Your task to perform on an android device: toggle improve location accuracy Image 0: 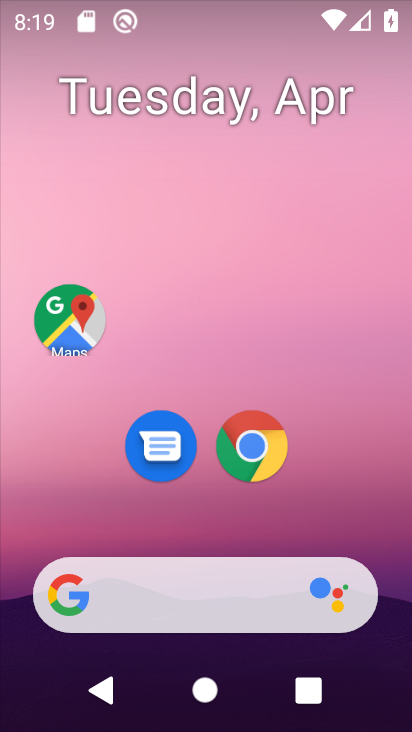
Step 0: drag from (347, 491) to (256, 153)
Your task to perform on an android device: toggle improve location accuracy Image 1: 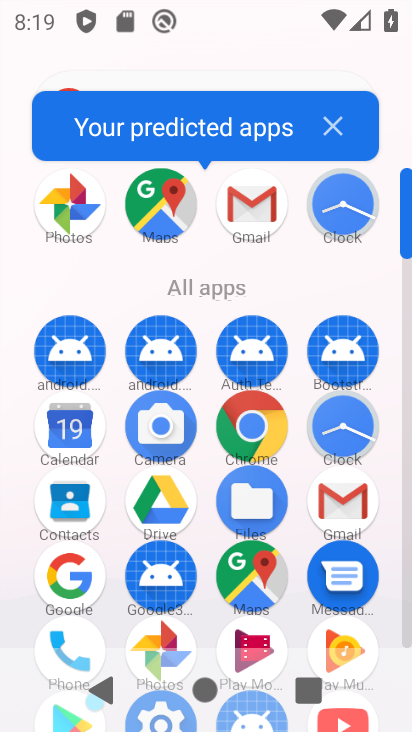
Step 1: drag from (289, 653) to (285, 300)
Your task to perform on an android device: toggle improve location accuracy Image 2: 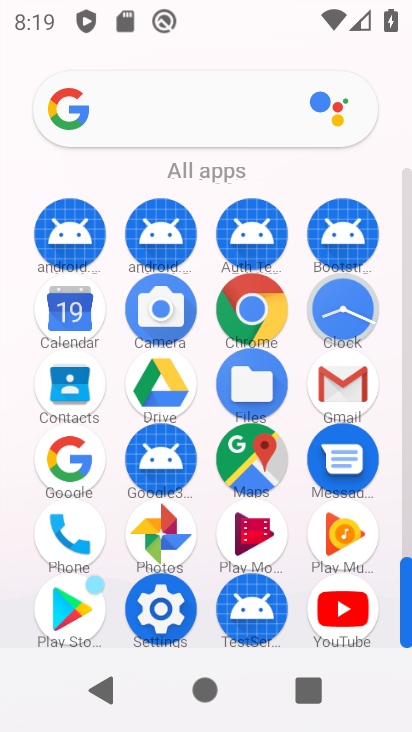
Step 2: click (163, 606)
Your task to perform on an android device: toggle improve location accuracy Image 3: 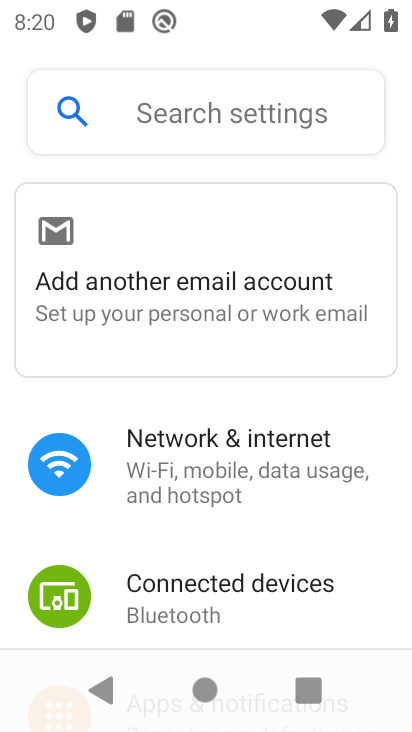
Step 3: drag from (175, 623) to (160, 295)
Your task to perform on an android device: toggle improve location accuracy Image 4: 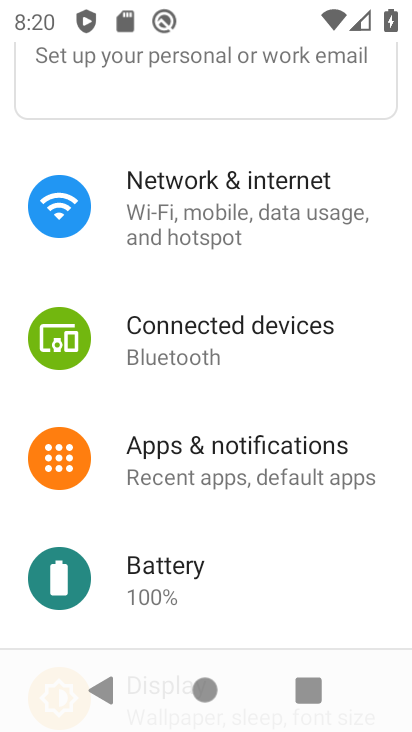
Step 4: drag from (191, 524) to (214, 211)
Your task to perform on an android device: toggle improve location accuracy Image 5: 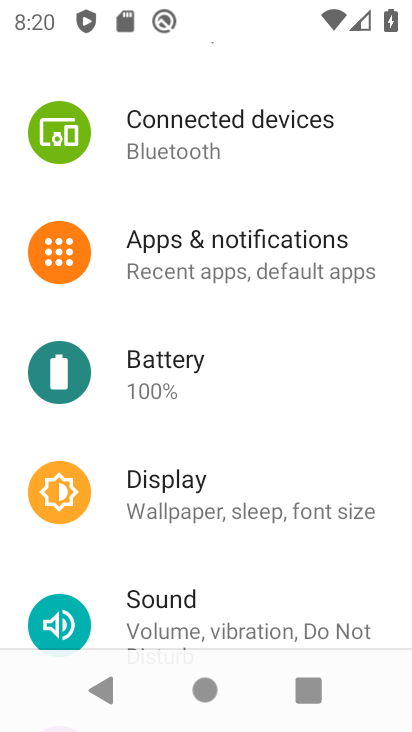
Step 5: drag from (202, 599) to (206, 181)
Your task to perform on an android device: toggle improve location accuracy Image 6: 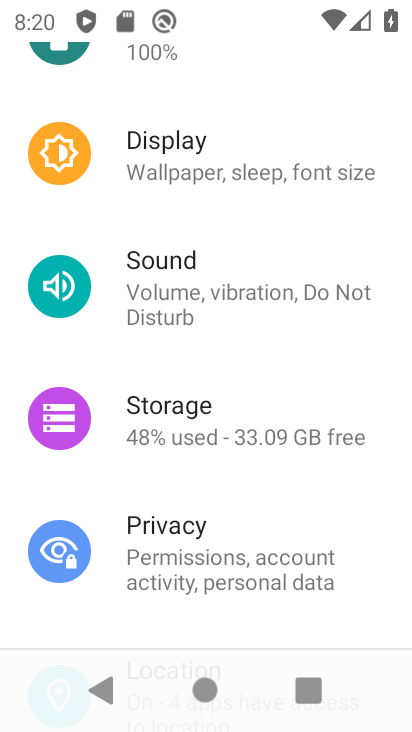
Step 6: drag from (196, 593) to (211, 312)
Your task to perform on an android device: toggle improve location accuracy Image 7: 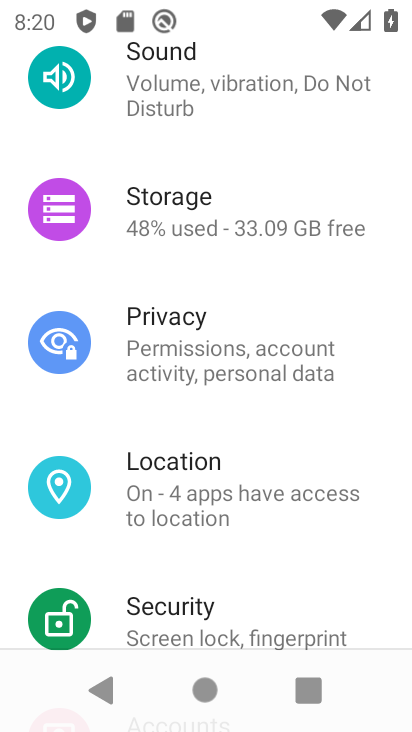
Step 7: click (172, 465)
Your task to perform on an android device: toggle improve location accuracy Image 8: 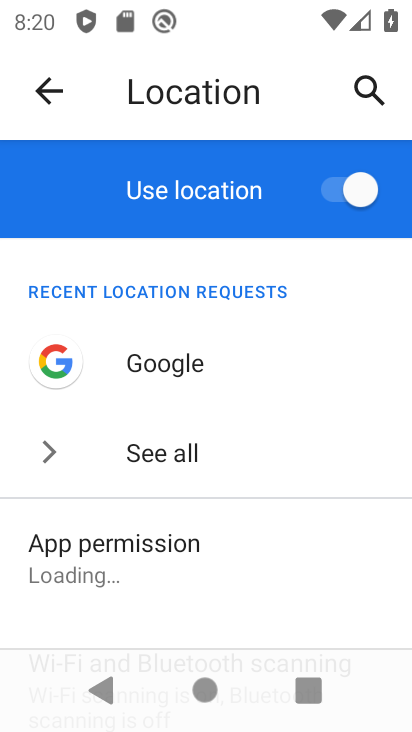
Step 8: drag from (180, 544) to (206, 264)
Your task to perform on an android device: toggle improve location accuracy Image 9: 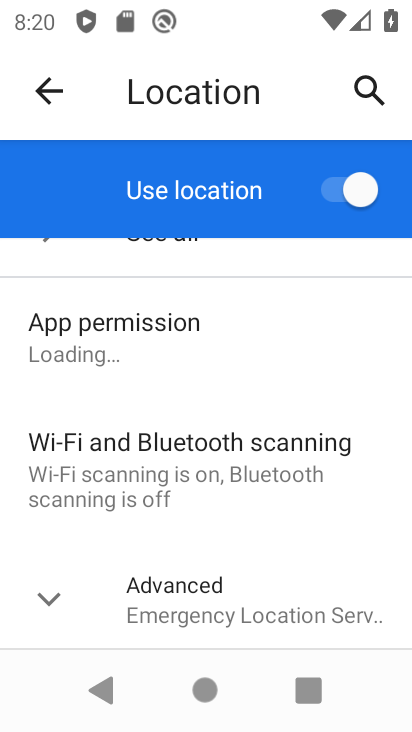
Step 9: click (187, 604)
Your task to perform on an android device: toggle improve location accuracy Image 10: 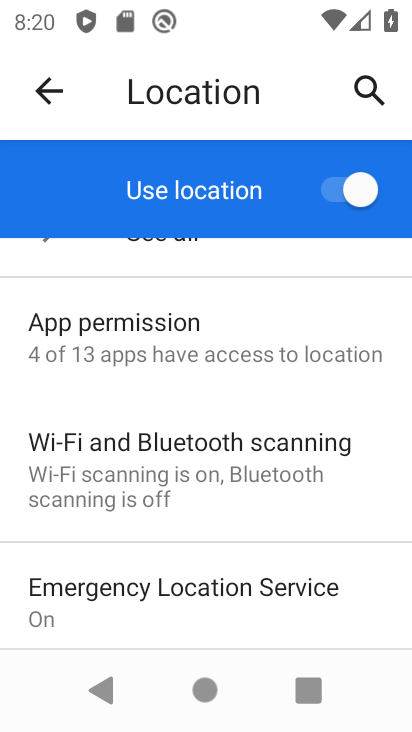
Step 10: drag from (190, 603) to (196, 285)
Your task to perform on an android device: toggle improve location accuracy Image 11: 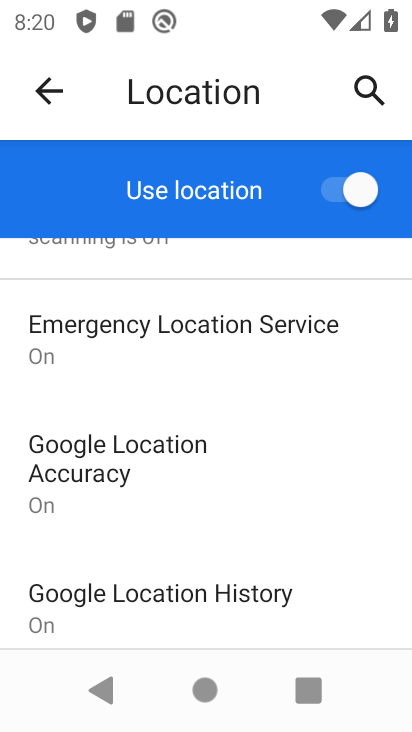
Step 11: click (103, 480)
Your task to perform on an android device: toggle improve location accuracy Image 12: 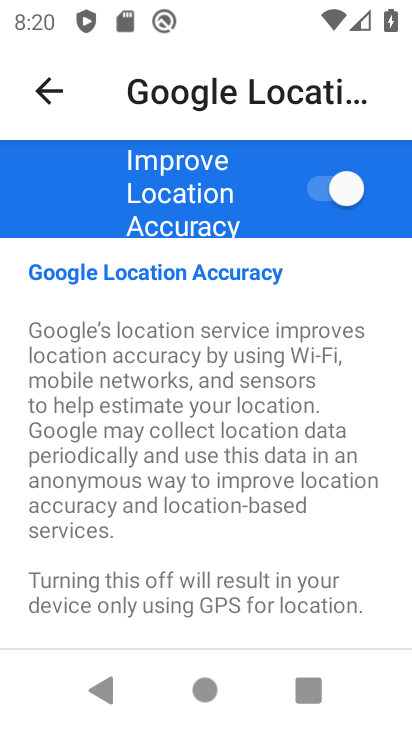
Step 12: click (353, 184)
Your task to perform on an android device: toggle improve location accuracy Image 13: 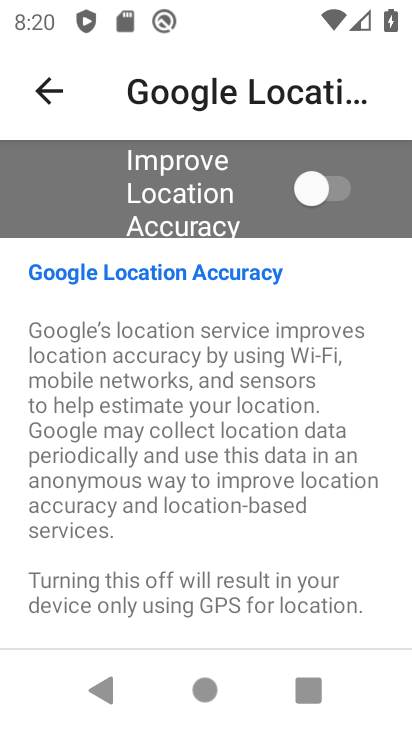
Step 13: task complete